Your task to perform on an android device: change alarm snooze length Image 0: 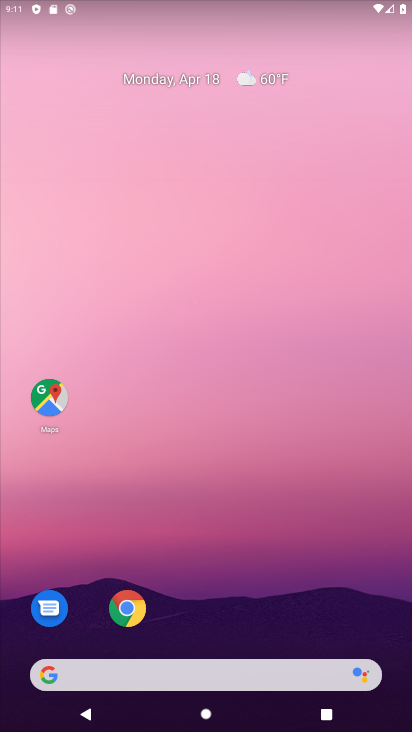
Step 0: click (270, 86)
Your task to perform on an android device: change alarm snooze length Image 1: 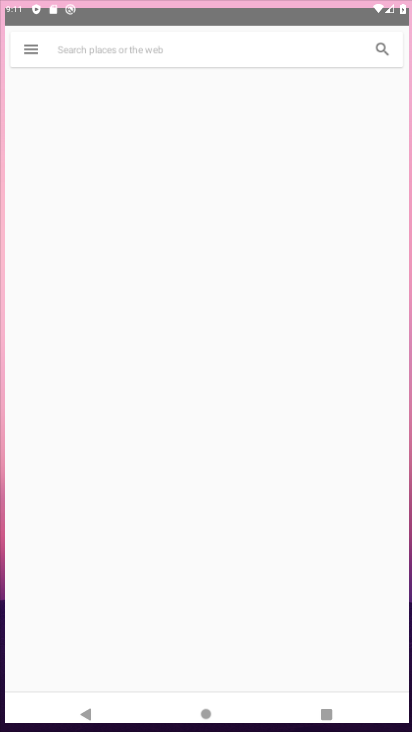
Step 1: click (314, 92)
Your task to perform on an android device: change alarm snooze length Image 2: 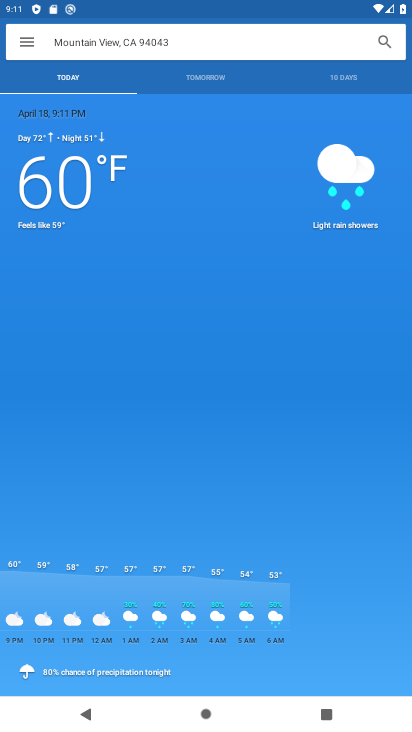
Step 2: press home button
Your task to perform on an android device: change alarm snooze length Image 3: 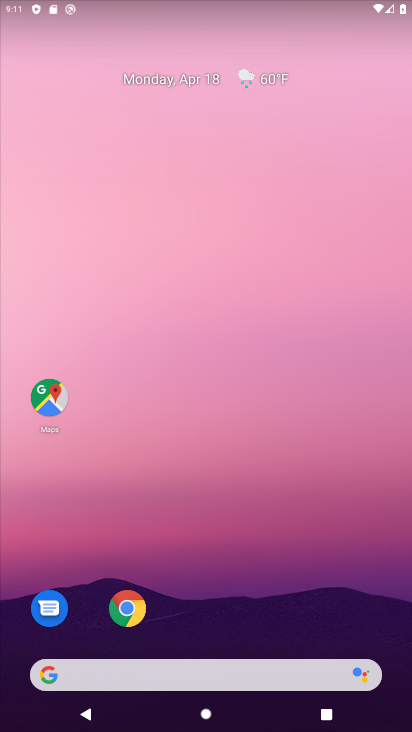
Step 3: drag from (352, 582) to (350, 49)
Your task to perform on an android device: change alarm snooze length Image 4: 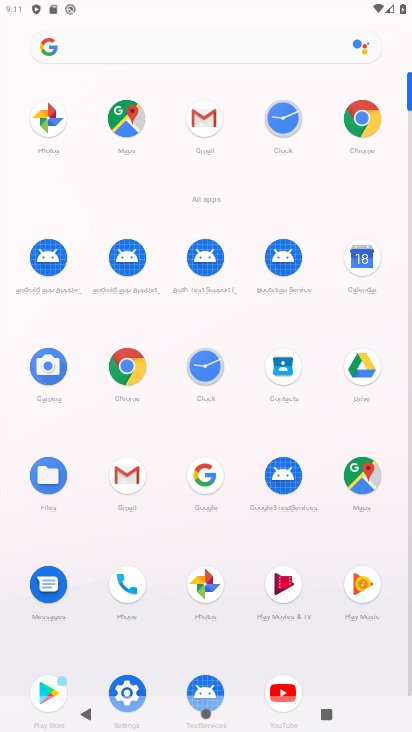
Step 4: click (192, 367)
Your task to perform on an android device: change alarm snooze length Image 5: 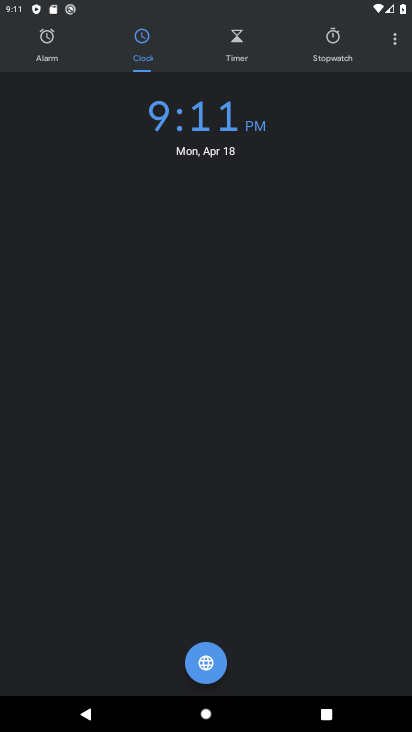
Step 5: click (53, 41)
Your task to perform on an android device: change alarm snooze length Image 6: 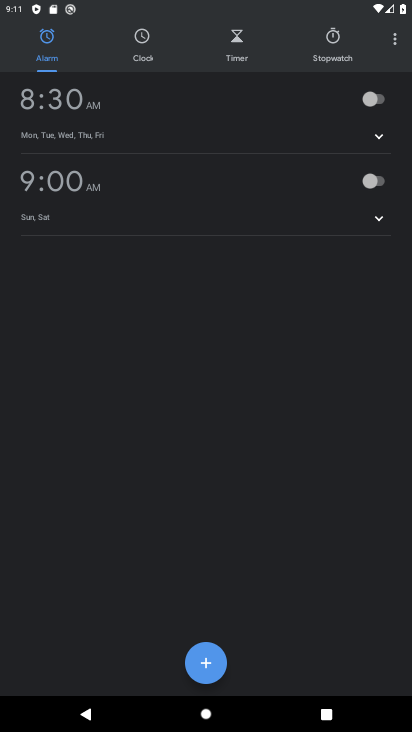
Step 6: click (389, 36)
Your task to perform on an android device: change alarm snooze length Image 7: 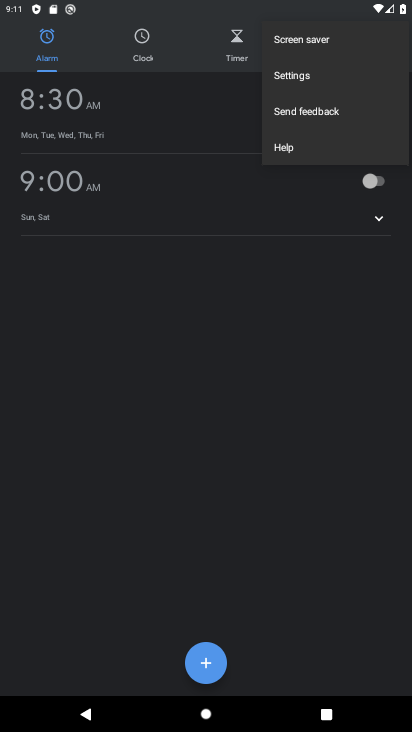
Step 7: click (288, 75)
Your task to perform on an android device: change alarm snooze length Image 8: 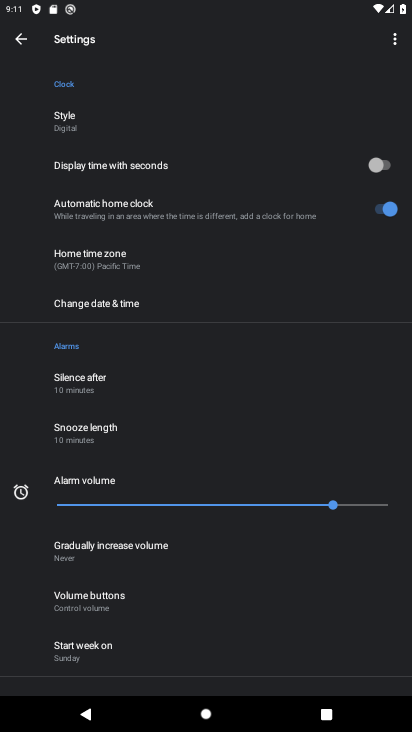
Step 8: drag from (253, 628) to (247, 244)
Your task to perform on an android device: change alarm snooze length Image 9: 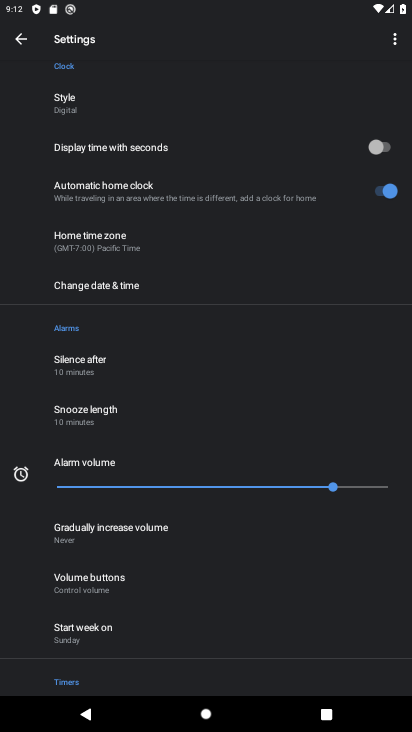
Step 9: drag from (224, 536) to (227, 212)
Your task to perform on an android device: change alarm snooze length Image 10: 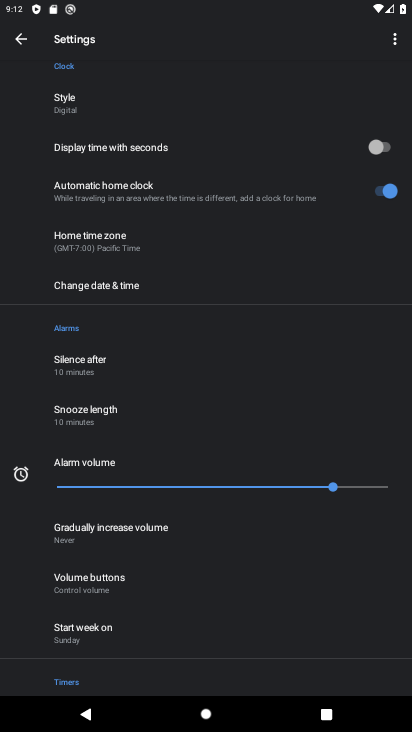
Step 10: click (68, 411)
Your task to perform on an android device: change alarm snooze length Image 11: 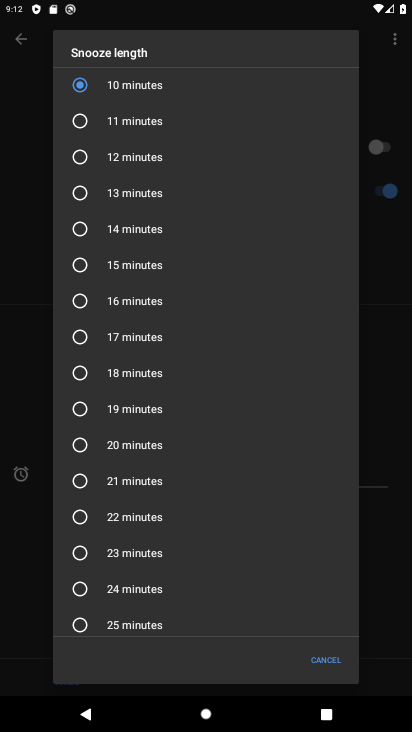
Step 11: click (76, 194)
Your task to perform on an android device: change alarm snooze length Image 12: 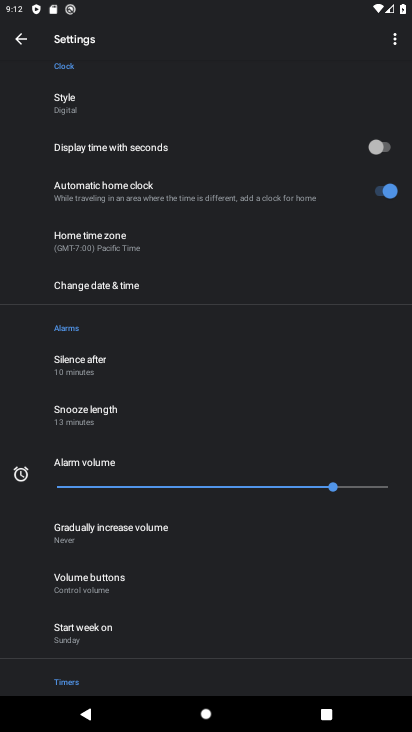
Step 12: task complete